Your task to perform on an android device: delete a single message in the gmail app Image 0: 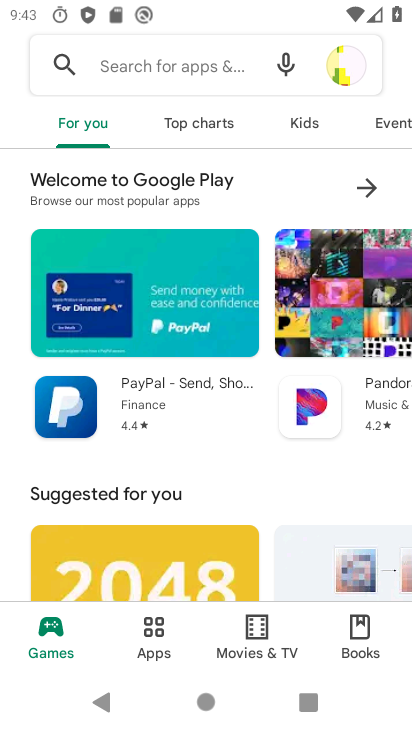
Step 0: press home button
Your task to perform on an android device: delete a single message in the gmail app Image 1: 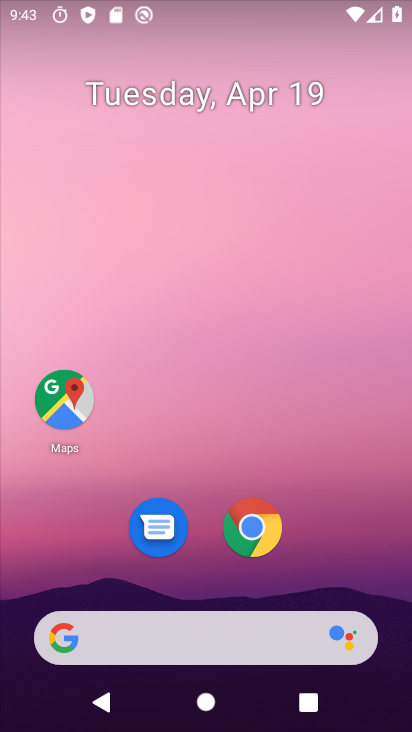
Step 1: drag from (267, 666) to (244, 174)
Your task to perform on an android device: delete a single message in the gmail app Image 2: 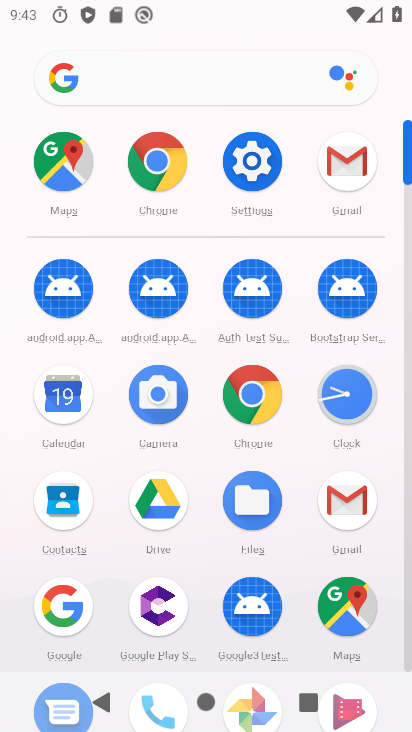
Step 2: click (351, 160)
Your task to perform on an android device: delete a single message in the gmail app Image 3: 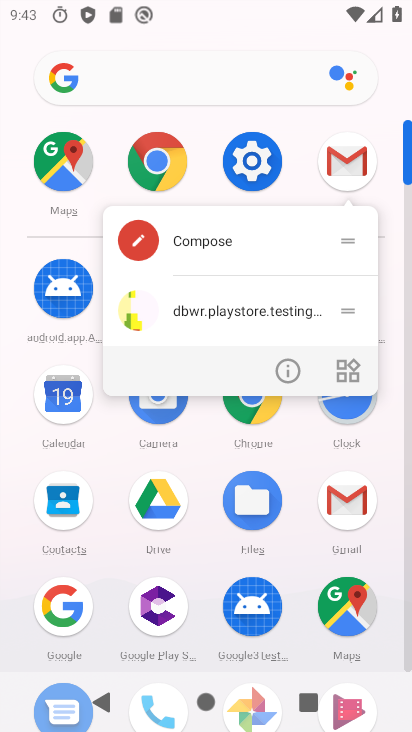
Step 3: click (337, 164)
Your task to perform on an android device: delete a single message in the gmail app Image 4: 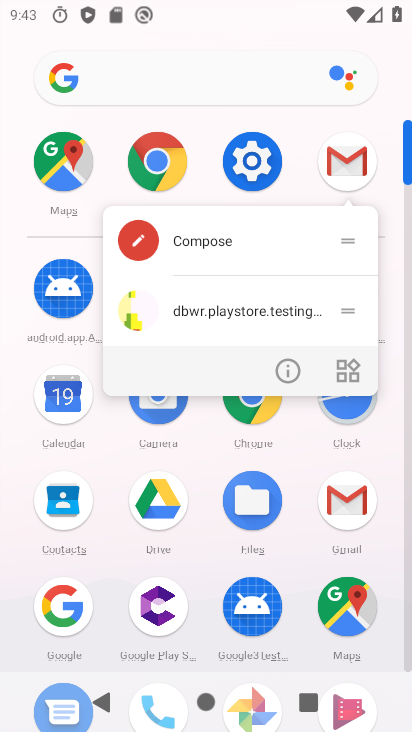
Step 4: click (337, 164)
Your task to perform on an android device: delete a single message in the gmail app Image 5: 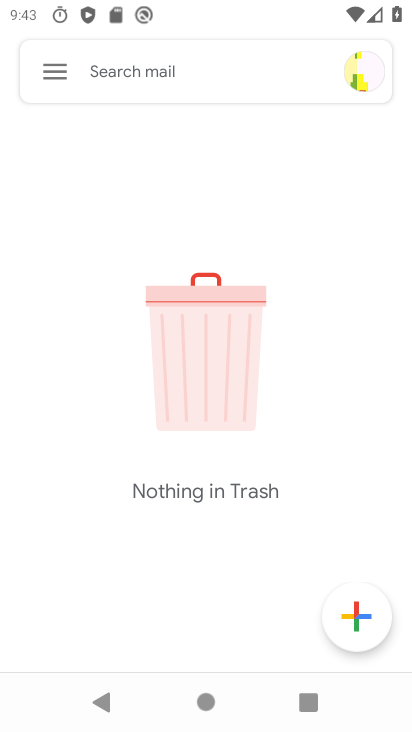
Step 5: click (43, 67)
Your task to perform on an android device: delete a single message in the gmail app Image 6: 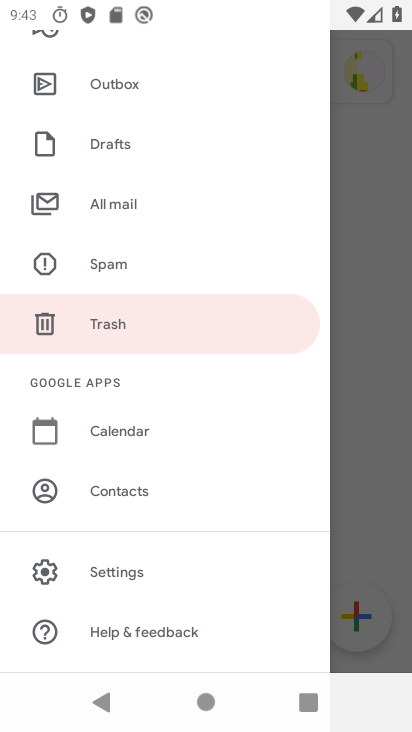
Step 6: click (134, 187)
Your task to perform on an android device: delete a single message in the gmail app Image 7: 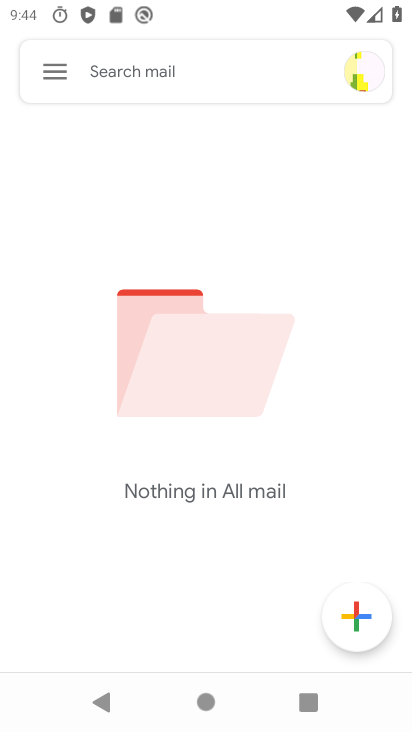
Step 7: task complete